Your task to perform on an android device: Clear the shopping cart on costco. Search for "alienware area 51" on costco, select the first entry, add it to the cart, then select checkout. Image 0: 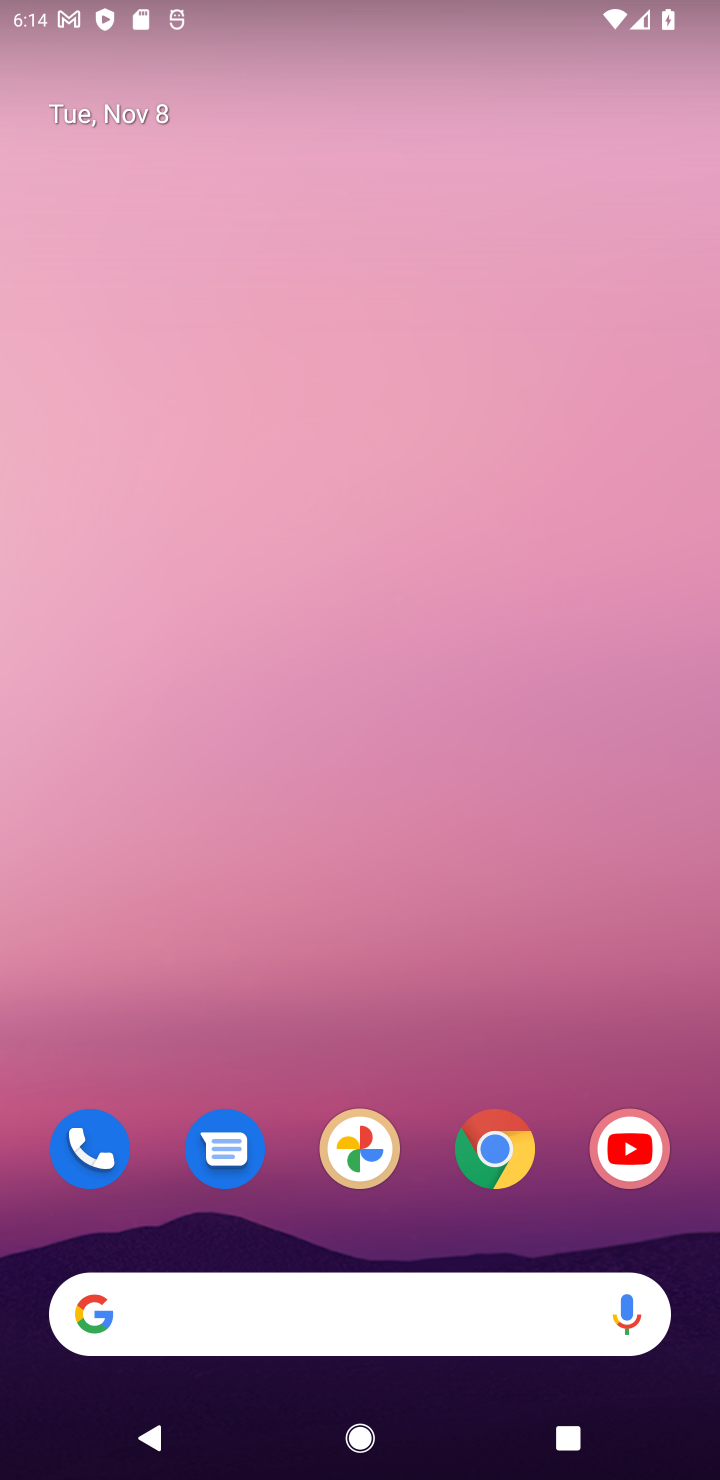
Step 0: click (505, 1138)
Your task to perform on an android device: Clear the shopping cart on costco. Search for "alienware area 51" on costco, select the first entry, add it to the cart, then select checkout. Image 1: 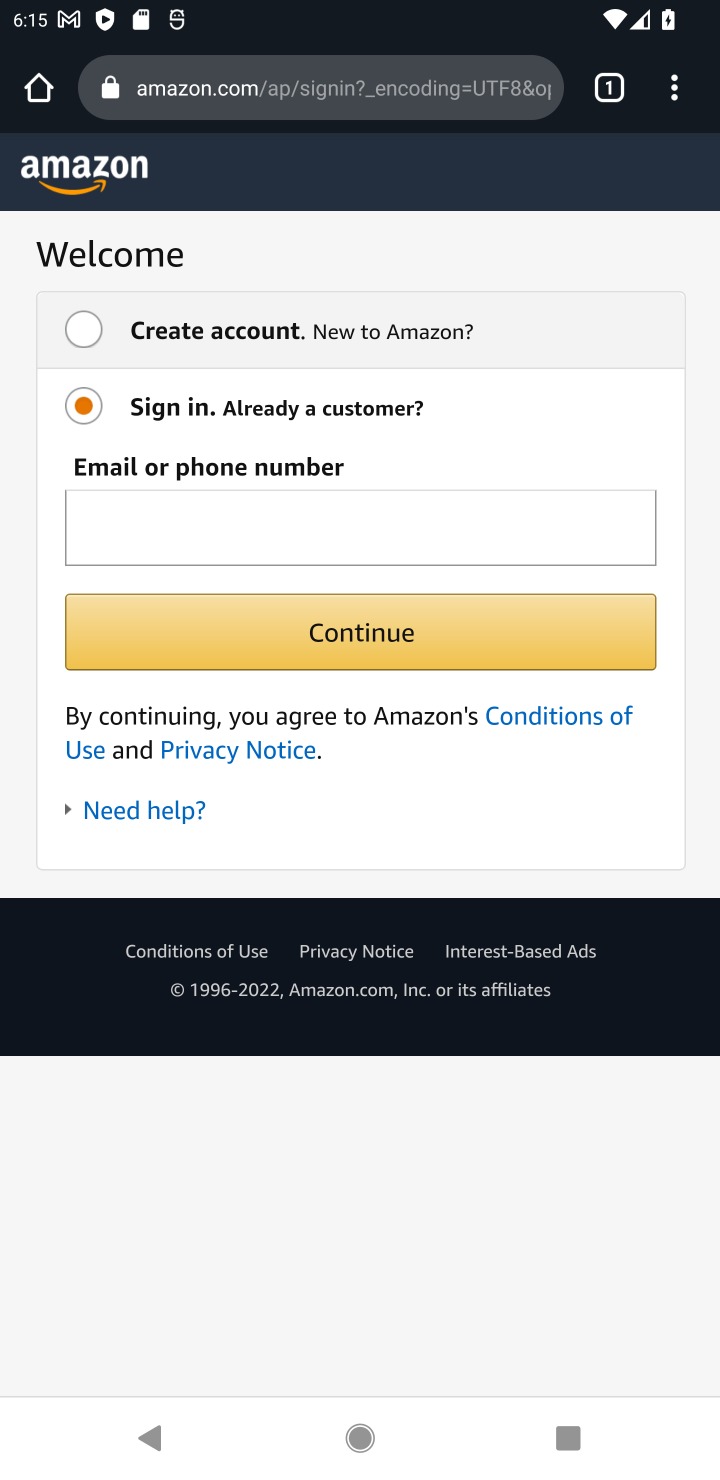
Step 1: click (508, 86)
Your task to perform on an android device: Clear the shopping cart on costco. Search for "alienware area 51" on costco, select the first entry, add it to the cart, then select checkout. Image 2: 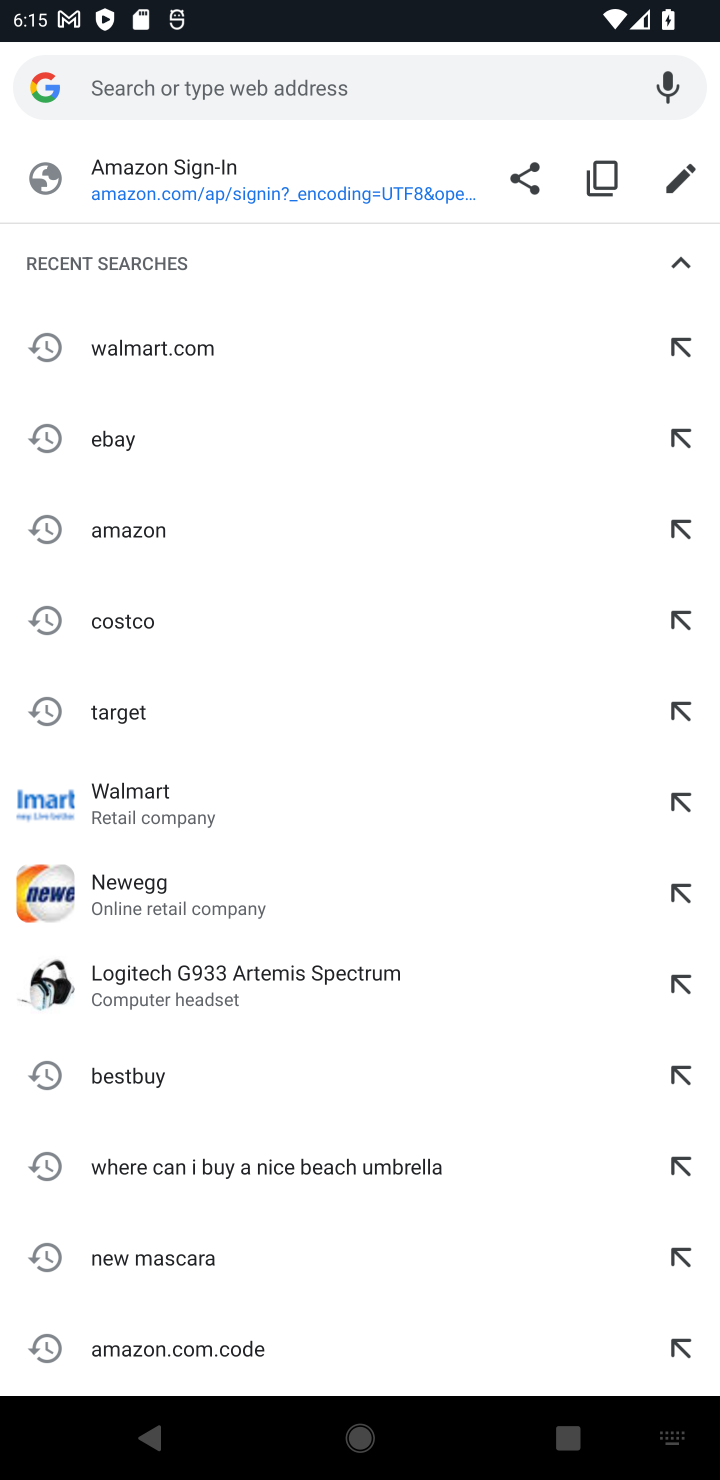
Step 2: type "costco"
Your task to perform on an android device: Clear the shopping cart on costco. Search for "alienware area 51" on costco, select the first entry, add it to the cart, then select checkout. Image 3: 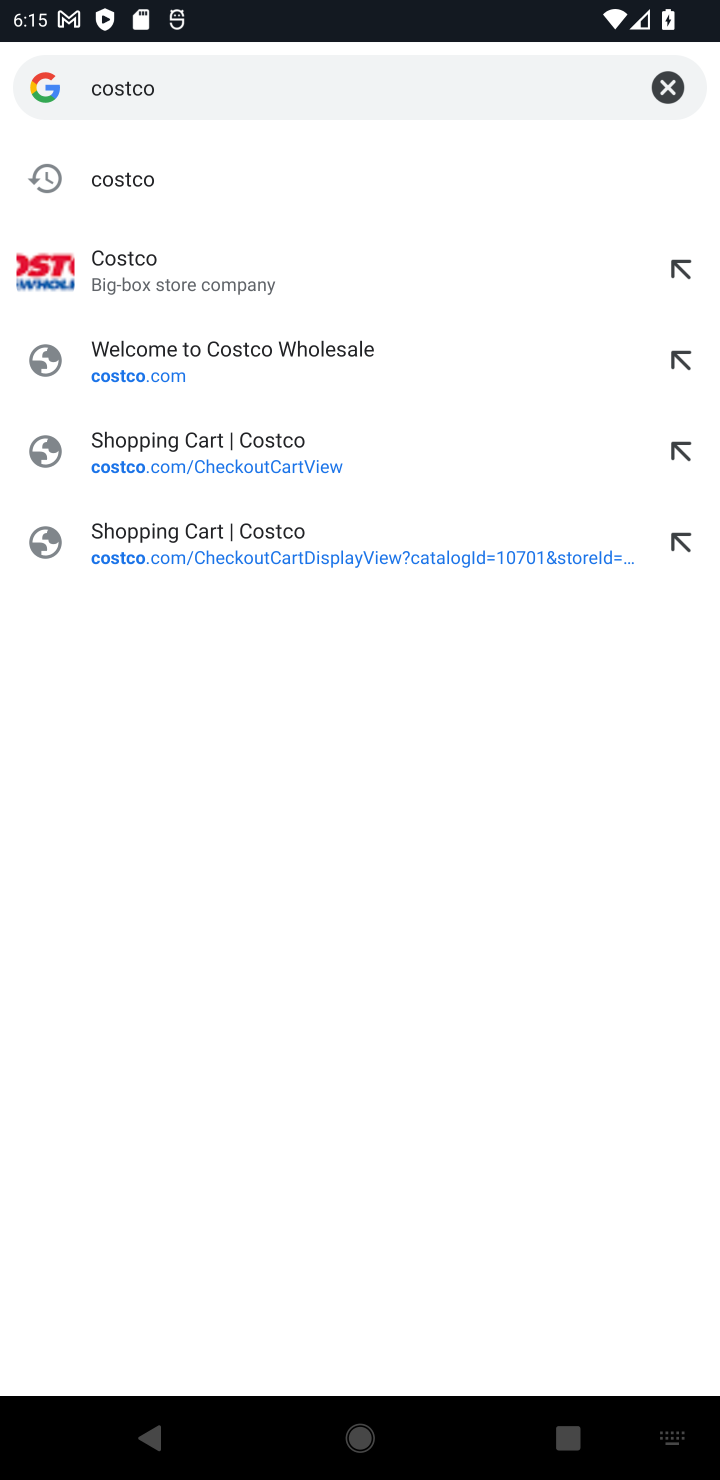
Step 3: click (130, 180)
Your task to perform on an android device: Clear the shopping cart on costco. Search for "alienware area 51" on costco, select the first entry, add it to the cart, then select checkout. Image 4: 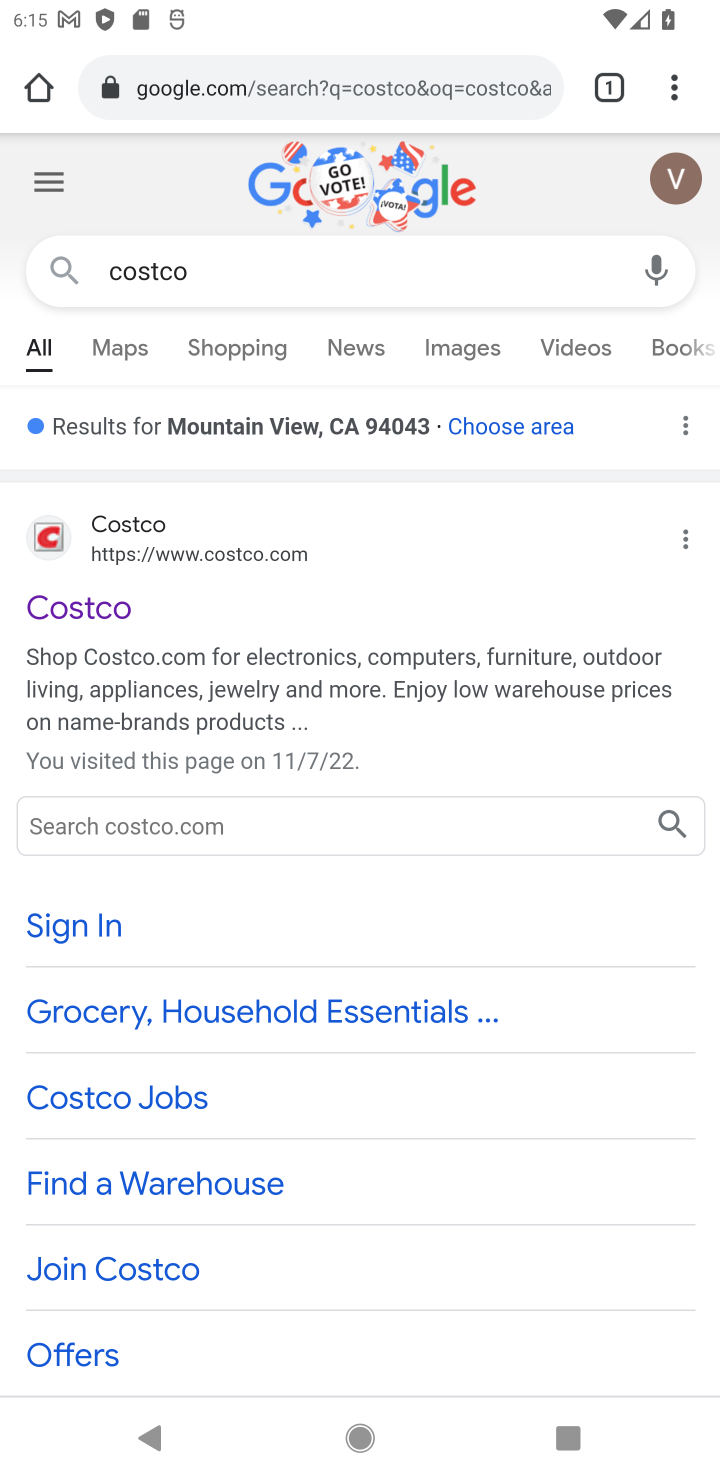
Step 4: click (233, 548)
Your task to perform on an android device: Clear the shopping cart on costco. Search for "alienware area 51" on costco, select the first entry, add it to the cart, then select checkout. Image 5: 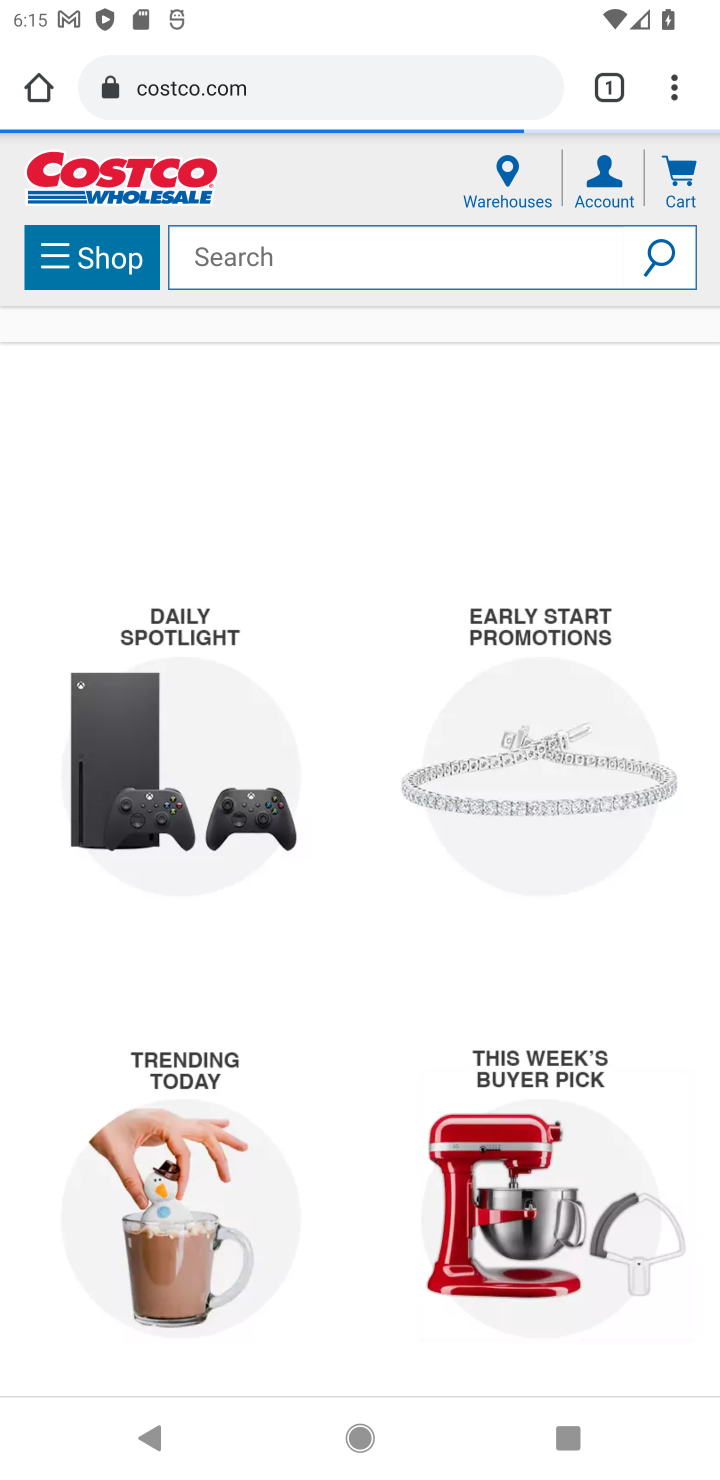
Step 5: click (683, 182)
Your task to perform on an android device: Clear the shopping cart on costco. Search for "alienware area 51" on costco, select the first entry, add it to the cart, then select checkout. Image 6: 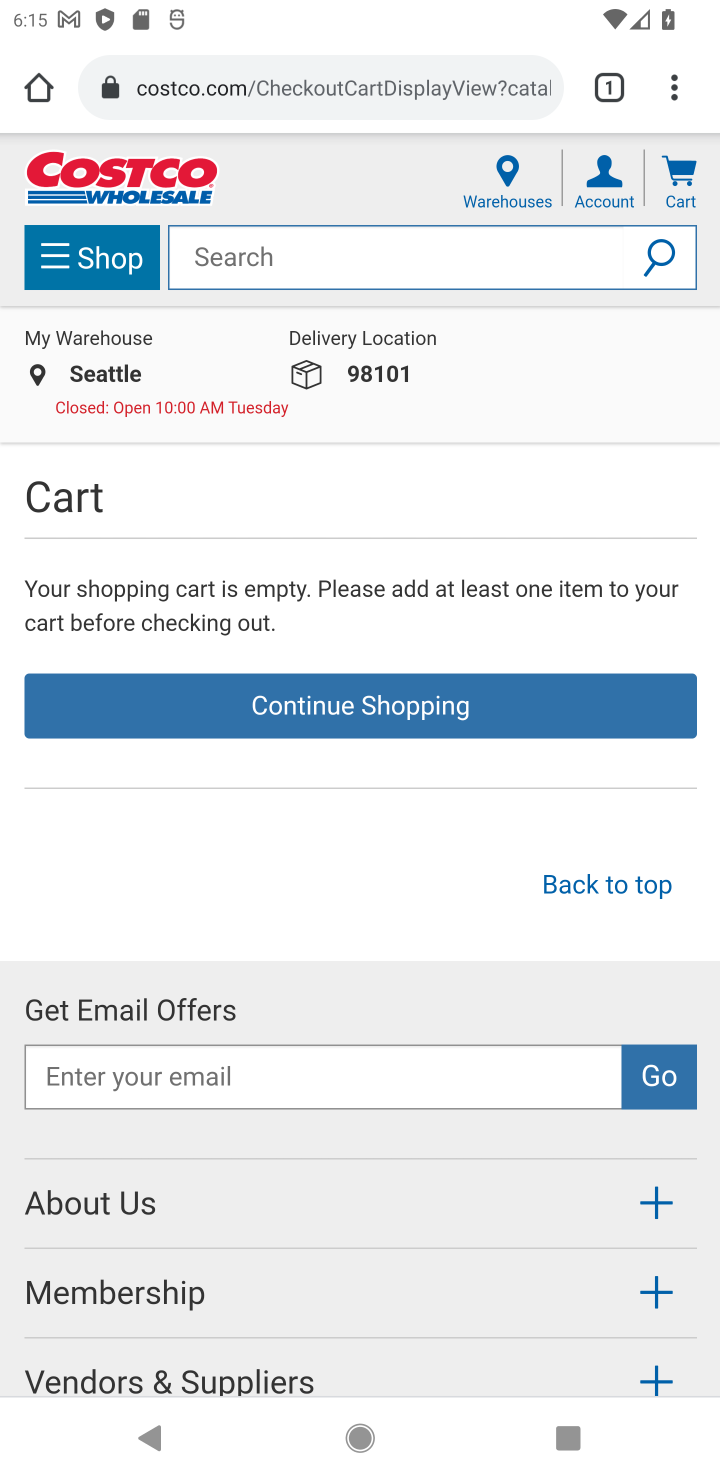
Step 6: click (515, 268)
Your task to perform on an android device: Clear the shopping cart on costco. Search for "alienware area 51" on costco, select the first entry, add it to the cart, then select checkout. Image 7: 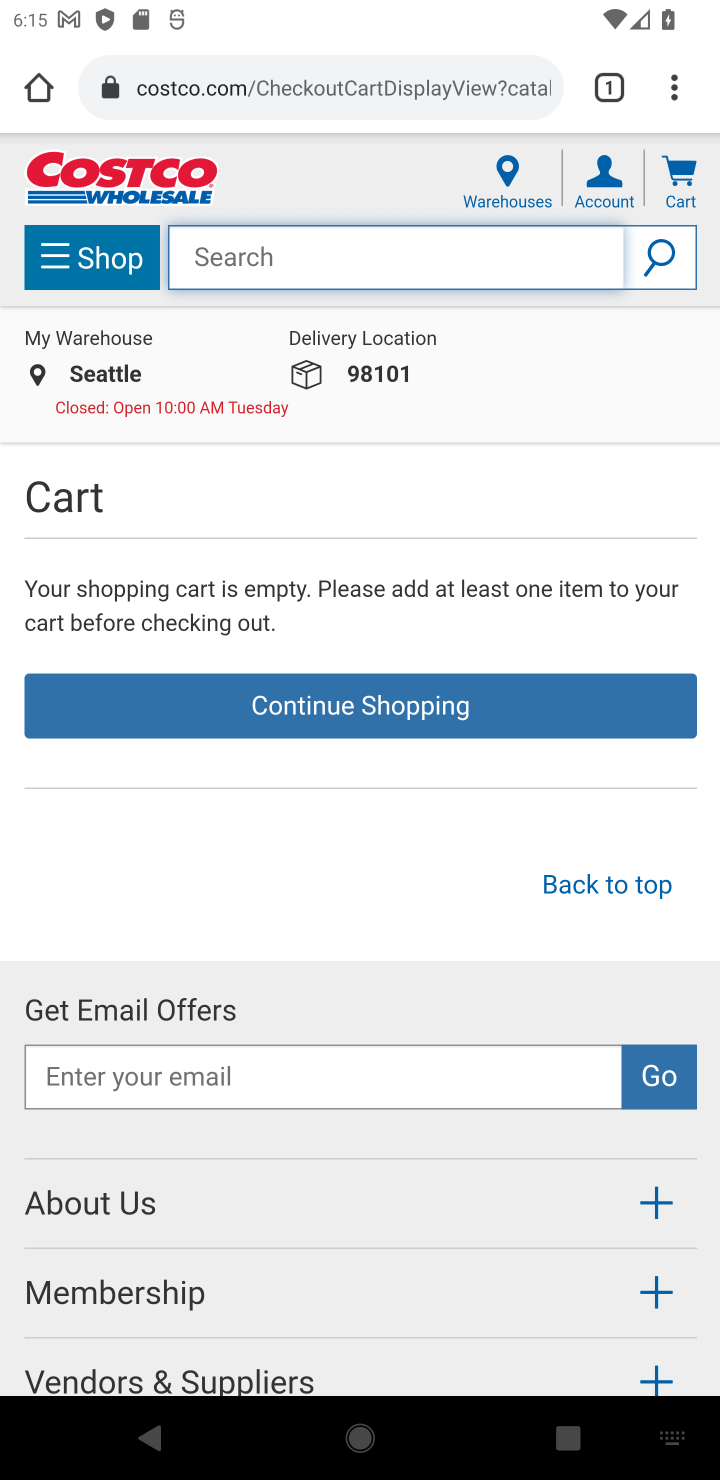
Step 7: type "alienware area 51"
Your task to perform on an android device: Clear the shopping cart on costco. Search for "alienware area 51" on costco, select the first entry, add it to the cart, then select checkout. Image 8: 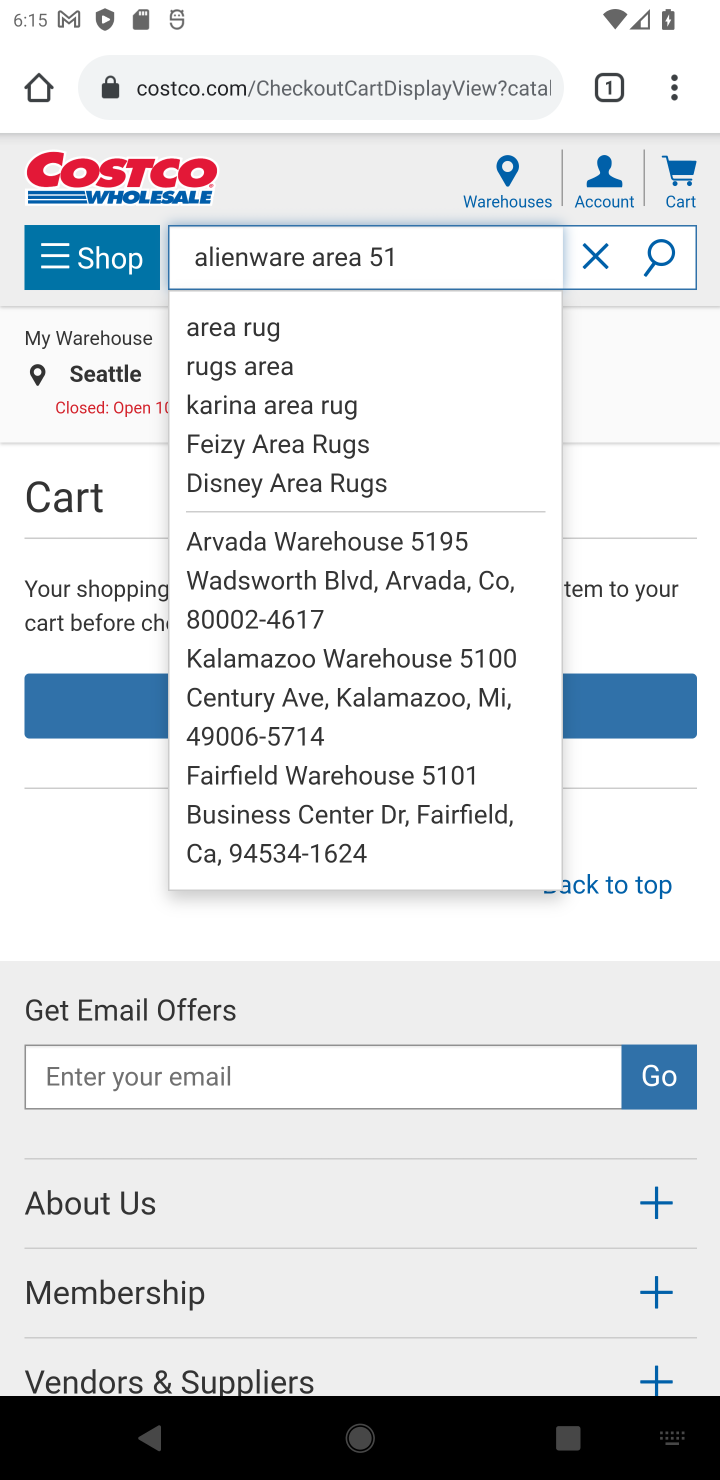
Step 8: click (640, 346)
Your task to perform on an android device: Clear the shopping cart on costco. Search for "alienware area 51" on costco, select the first entry, add it to the cart, then select checkout. Image 9: 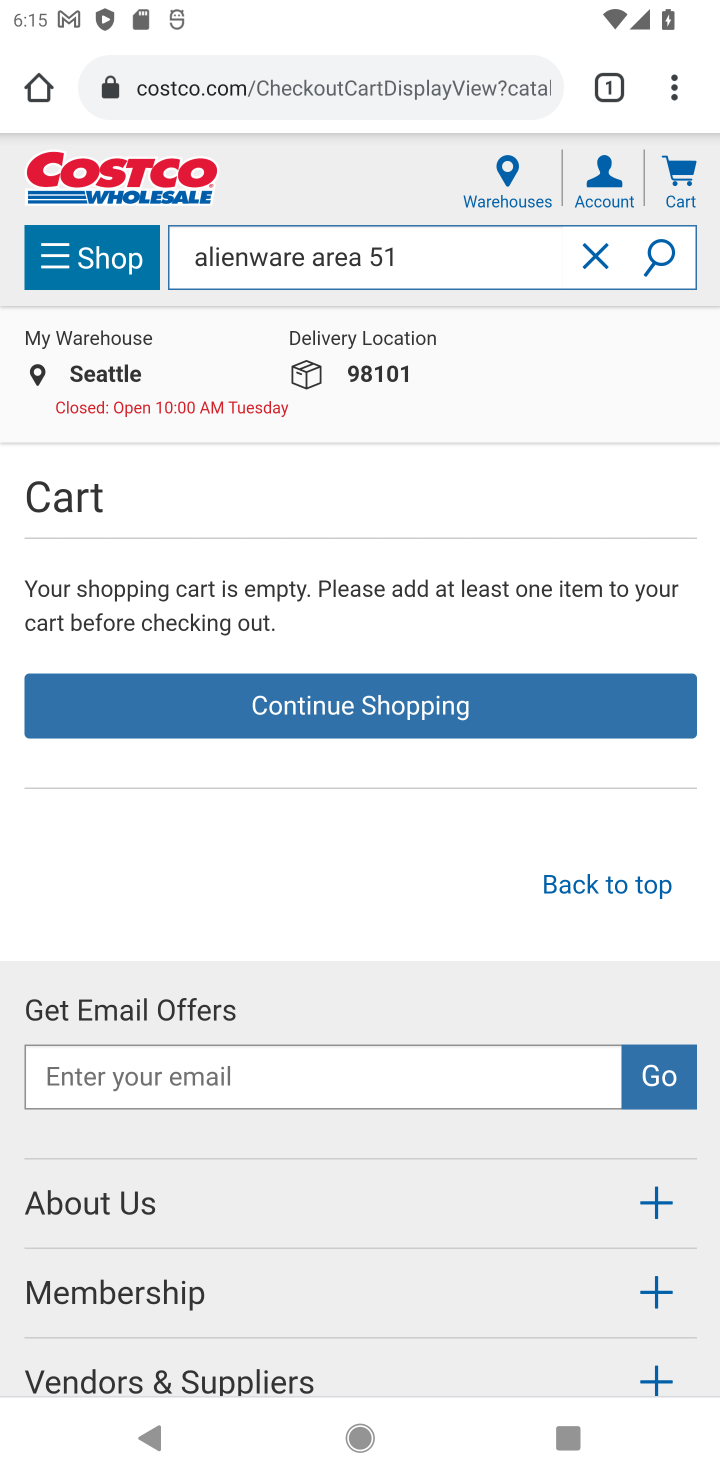
Step 9: task complete